Your task to perform on an android device: see sites visited before in the chrome app Image 0: 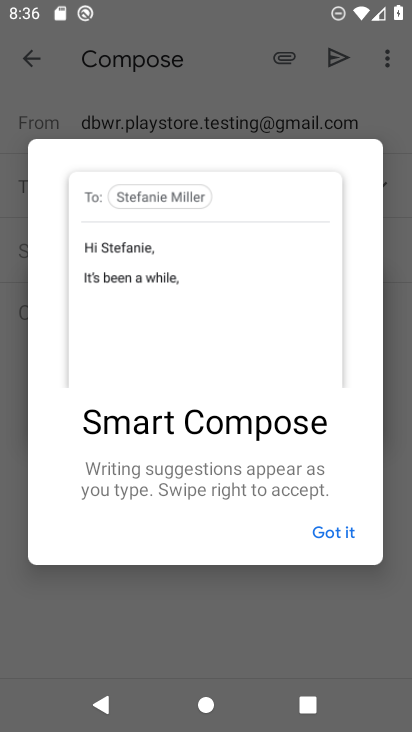
Step 0: press home button
Your task to perform on an android device: see sites visited before in the chrome app Image 1: 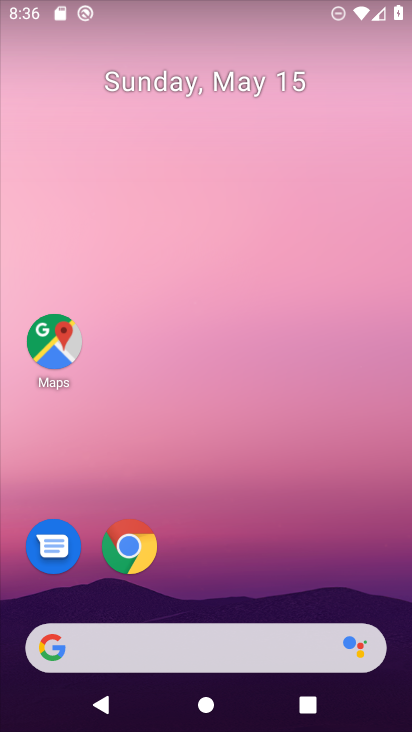
Step 1: click (130, 541)
Your task to perform on an android device: see sites visited before in the chrome app Image 2: 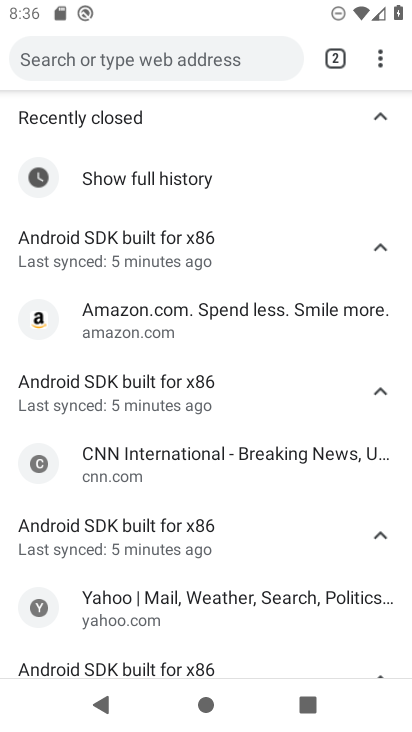
Step 2: task complete